Your task to perform on an android device: Set the phone to "Do not disturb". Image 0: 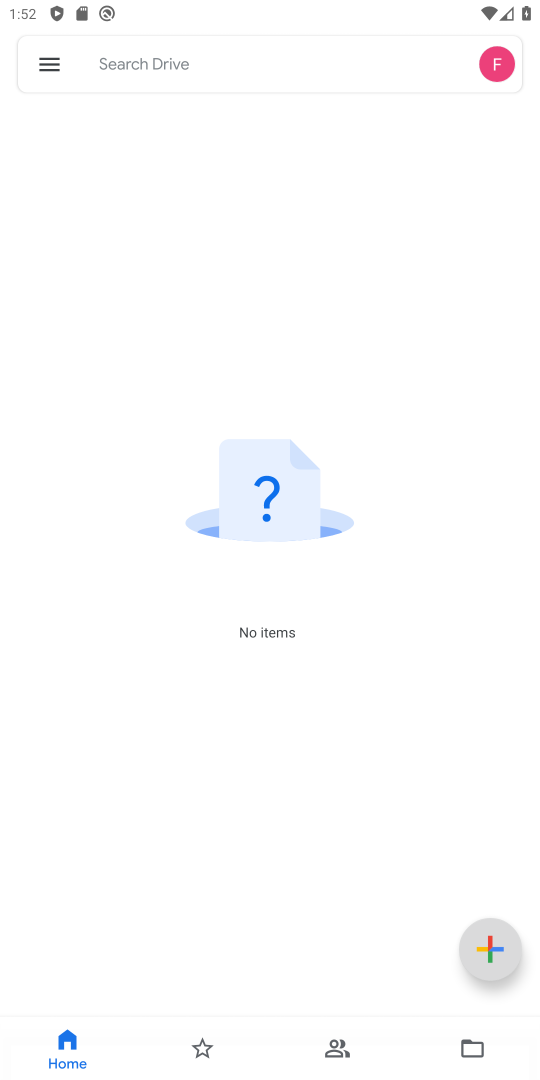
Step 0: press home button
Your task to perform on an android device: Set the phone to "Do not disturb". Image 1: 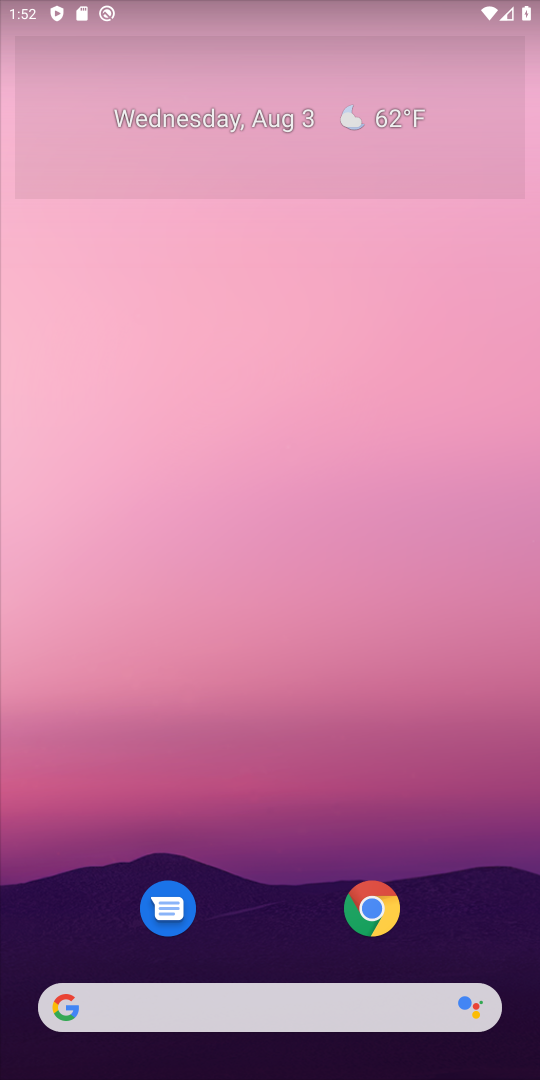
Step 1: drag from (425, 483) to (506, 97)
Your task to perform on an android device: Set the phone to "Do not disturb". Image 2: 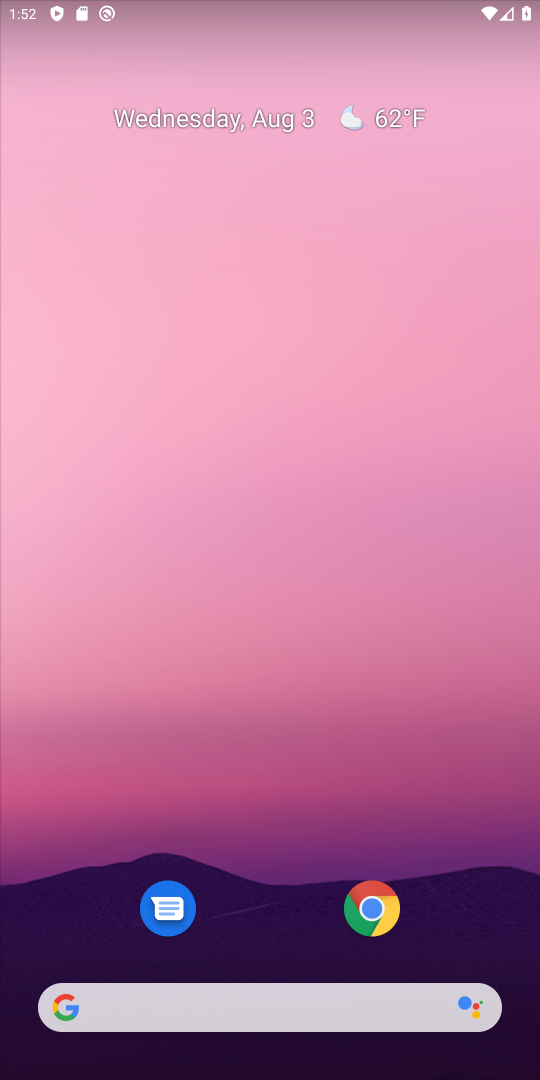
Step 2: click (196, 8)
Your task to perform on an android device: Set the phone to "Do not disturb". Image 3: 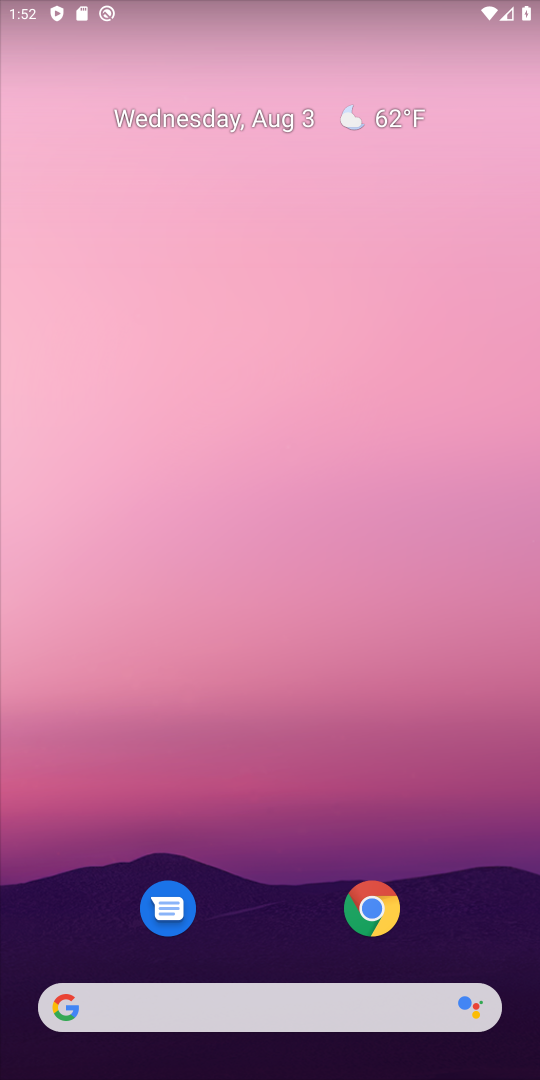
Step 3: drag from (348, 1061) to (308, 8)
Your task to perform on an android device: Set the phone to "Do not disturb". Image 4: 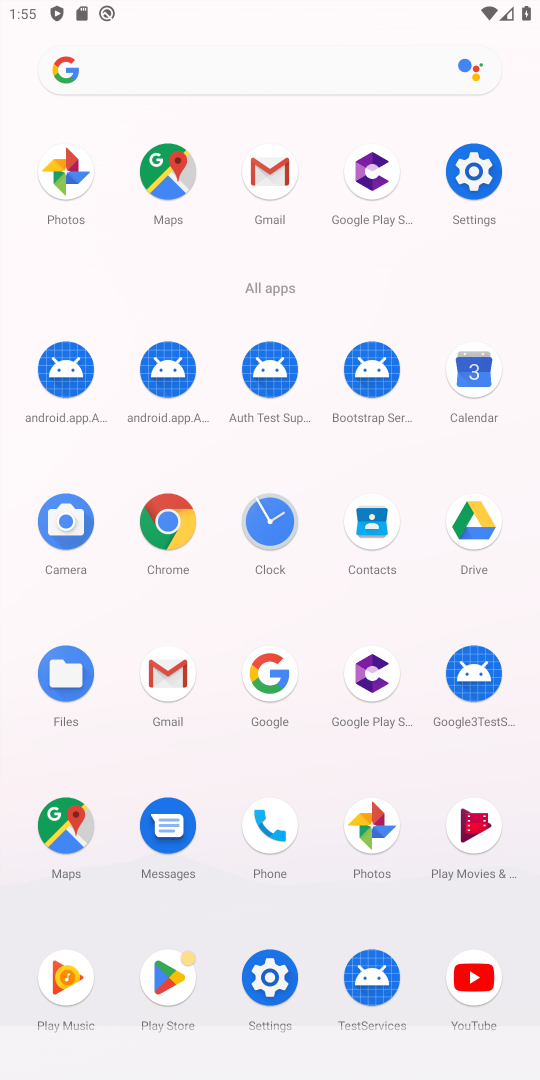
Step 4: click (499, 152)
Your task to perform on an android device: Set the phone to "Do not disturb". Image 5: 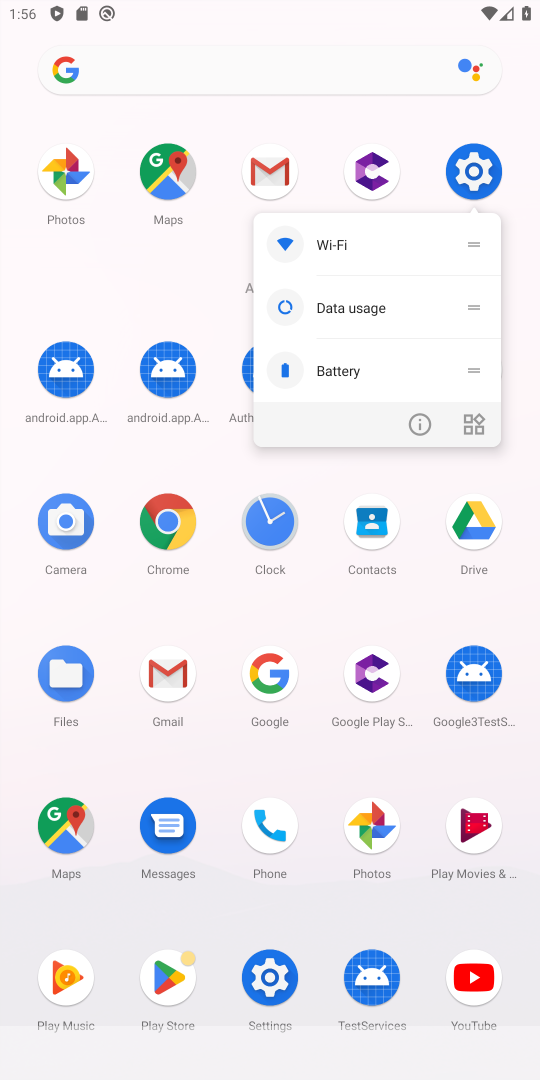
Step 5: click (496, 159)
Your task to perform on an android device: Set the phone to "Do not disturb". Image 6: 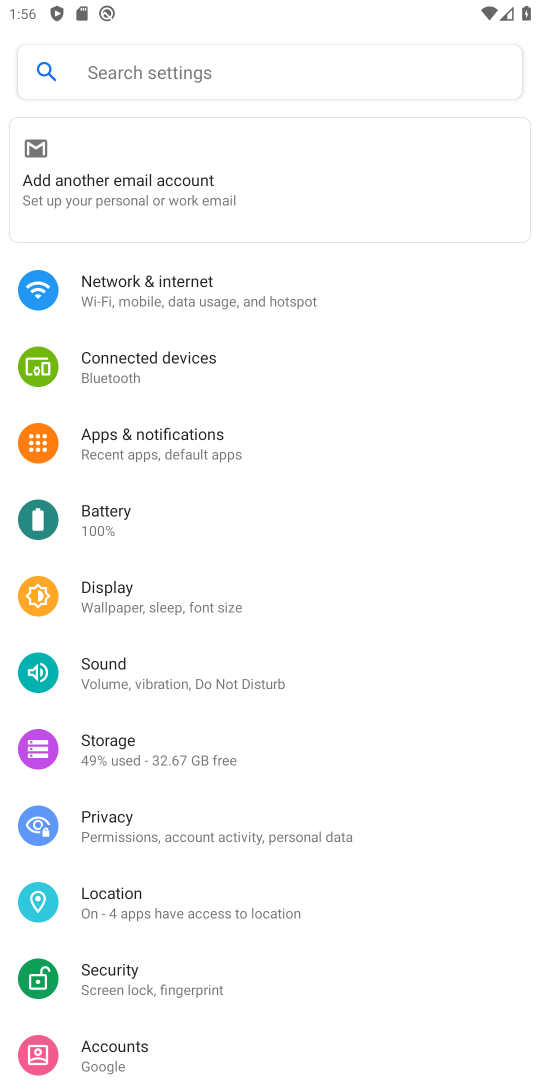
Step 6: click (194, 669)
Your task to perform on an android device: Set the phone to "Do not disturb". Image 7: 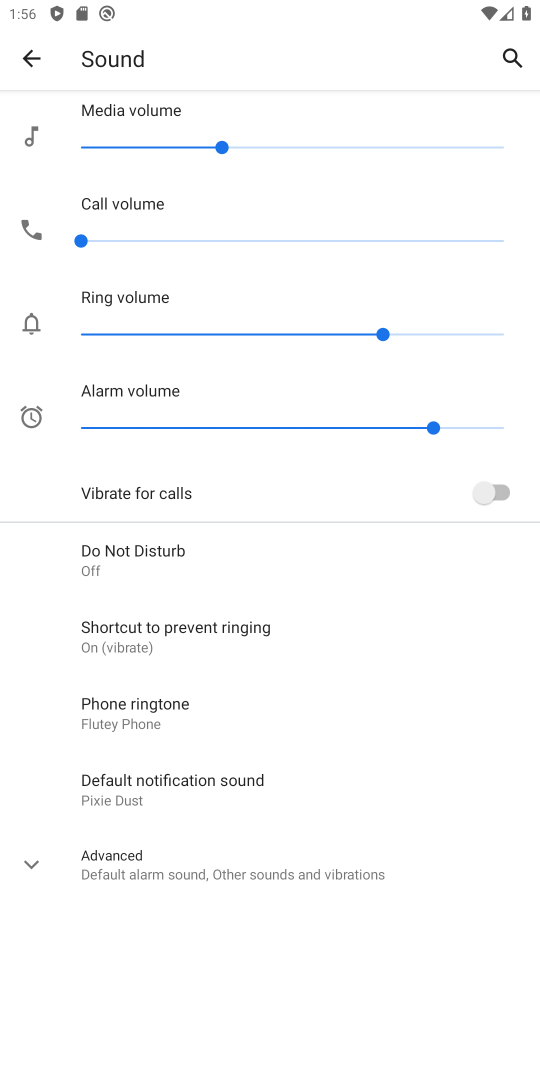
Step 7: task complete